Your task to perform on an android device: Clear all items from cart on newegg.com. Add "logitech g502" to the cart on newegg.com, then select checkout. Image 0: 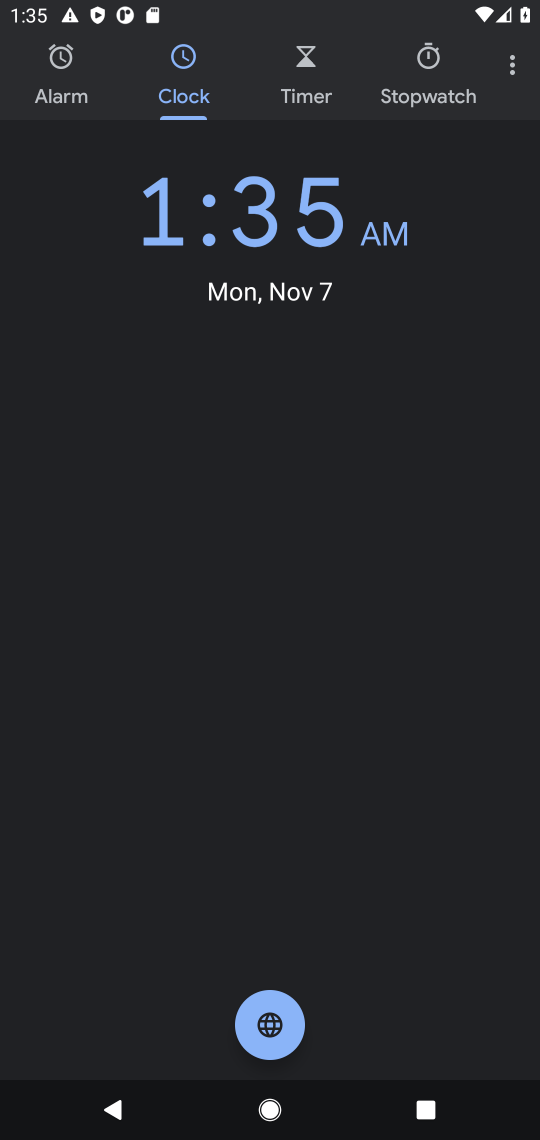
Step 0: press home button
Your task to perform on an android device: Clear all items from cart on newegg.com. Add "logitech g502" to the cart on newegg.com, then select checkout. Image 1: 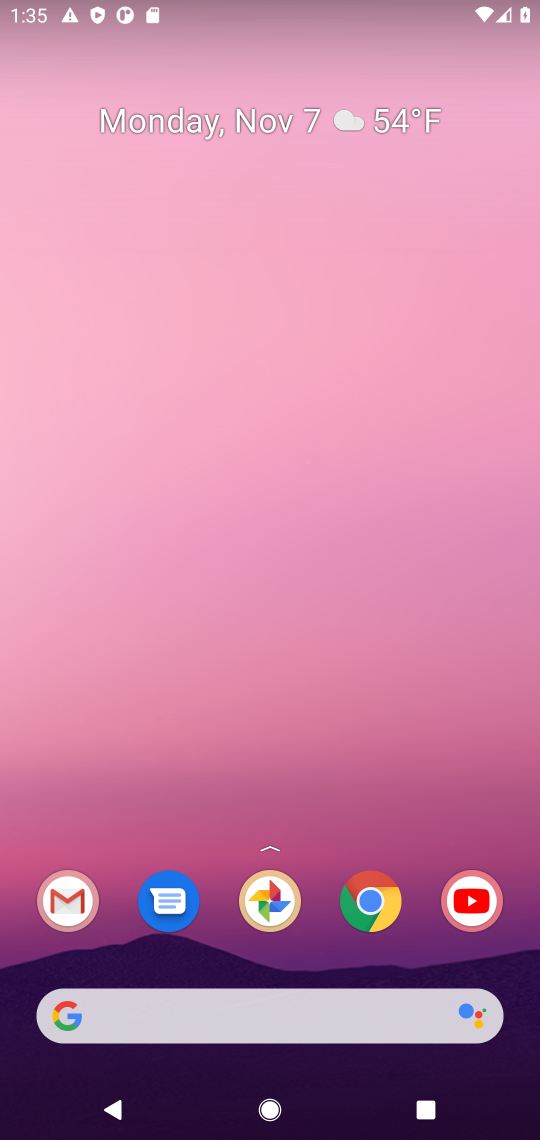
Step 1: click (367, 898)
Your task to perform on an android device: Clear all items from cart on newegg.com. Add "logitech g502" to the cart on newegg.com, then select checkout. Image 2: 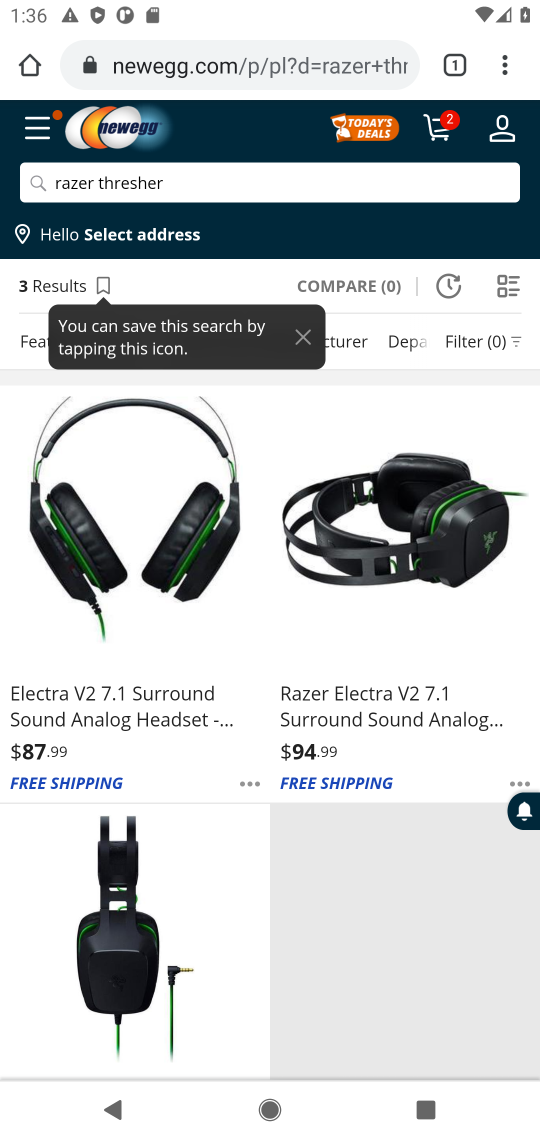
Step 2: click (435, 132)
Your task to perform on an android device: Clear all items from cart on newegg.com. Add "logitech g502" to the cart on newegg.com, then select checkout. Image 3: 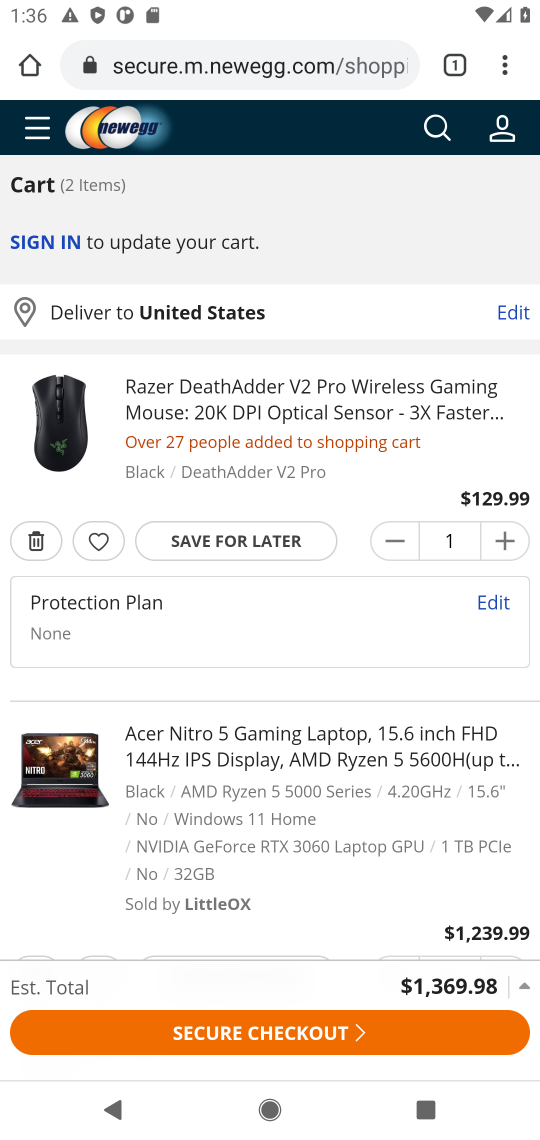
Step 3: click (28, 540)
Your task to perform on an android device: Clear all items from cart on newegg.com. Add "logitech g502" to the cart on newegg.com, then select checkout. Image 4: 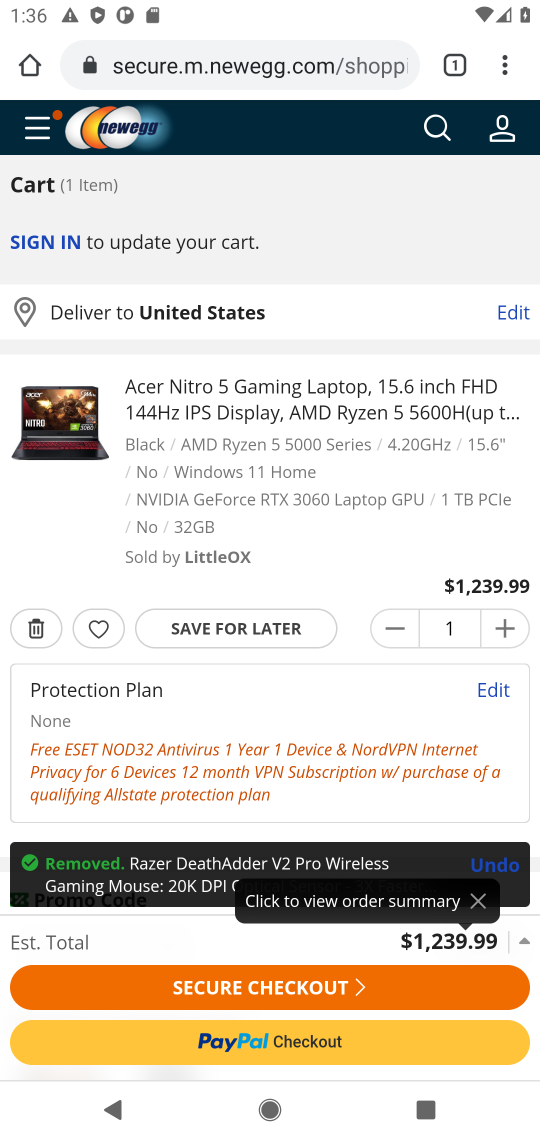
Step 4: click (35, 629)
Your task to perform on an android device: Clear all items from cart on newegg.com. Add "logitech g502" to the cart on newegg.com, then select checkout. Image 5: 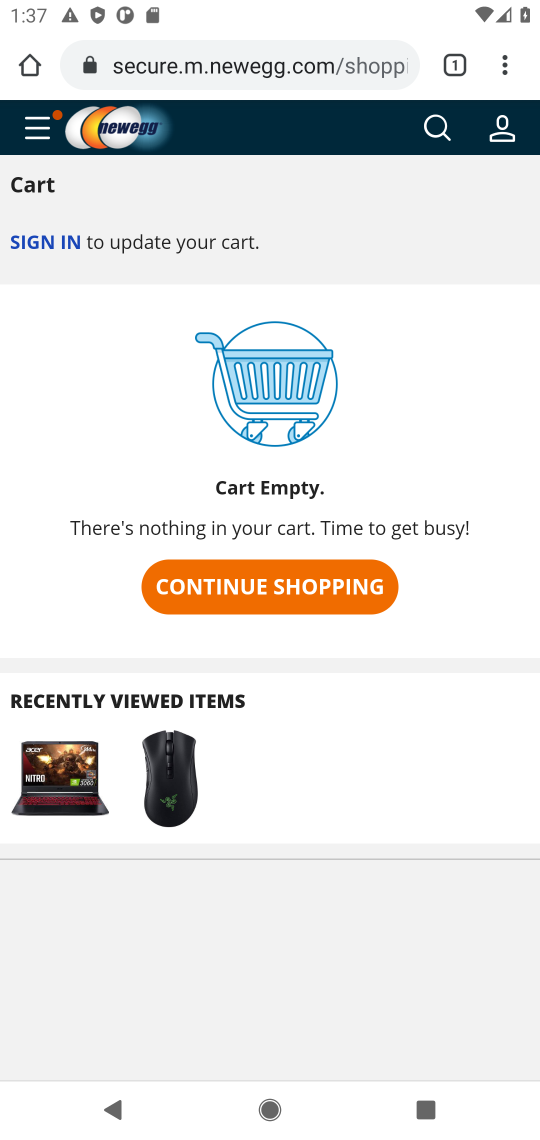
Step 5: click (274, 589)
Your task to perform on an android device: Clear all items from cart on newegg.com. Add "logitech g502" to the cart on newegg.com, then select checkout. Image 6: 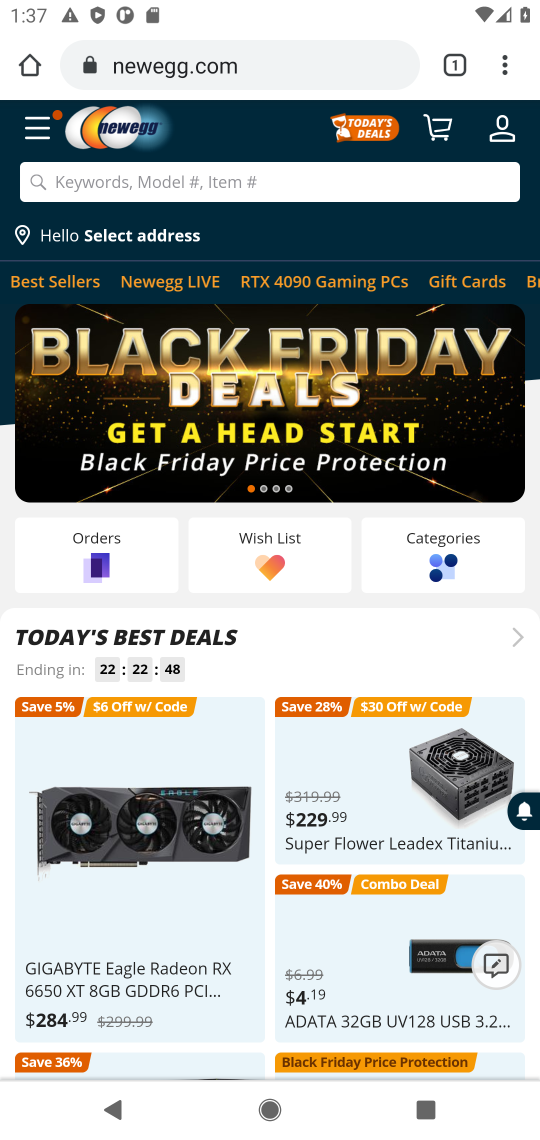
Step 6: click (184, 182)
Your task to perform on an android device: Clear all items from cart on newegg.com. Add "logitech g502" to the cart on newegg.com, then select checkout. Image 7: 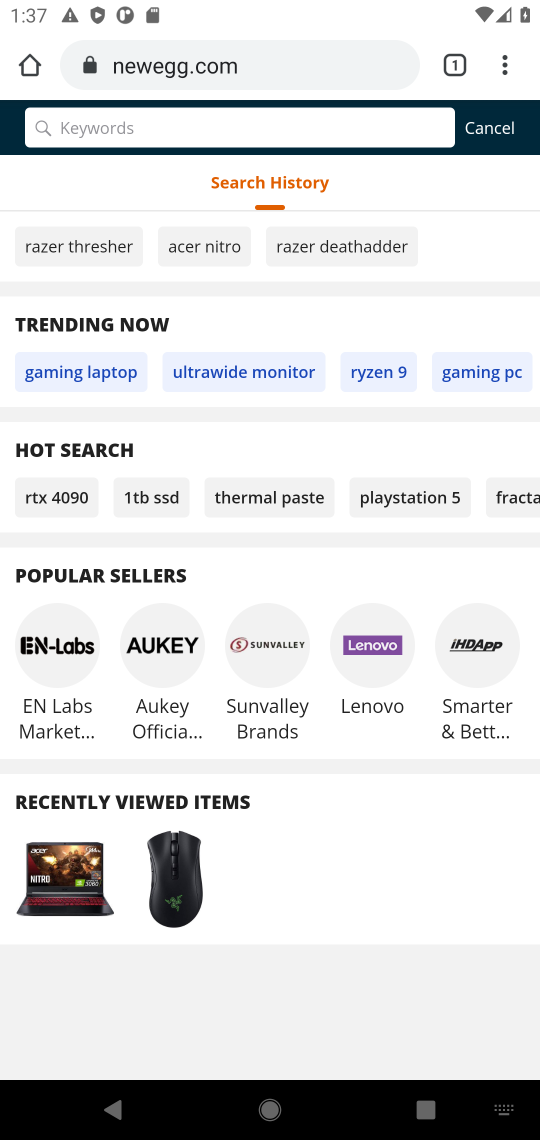
Step 7: type "logitech g502"
Your task to perform on an android device: Clear all items from cart on newegg.com. Add "logitech g502" to the cart on newegg.com, then select checkout. Image 8: 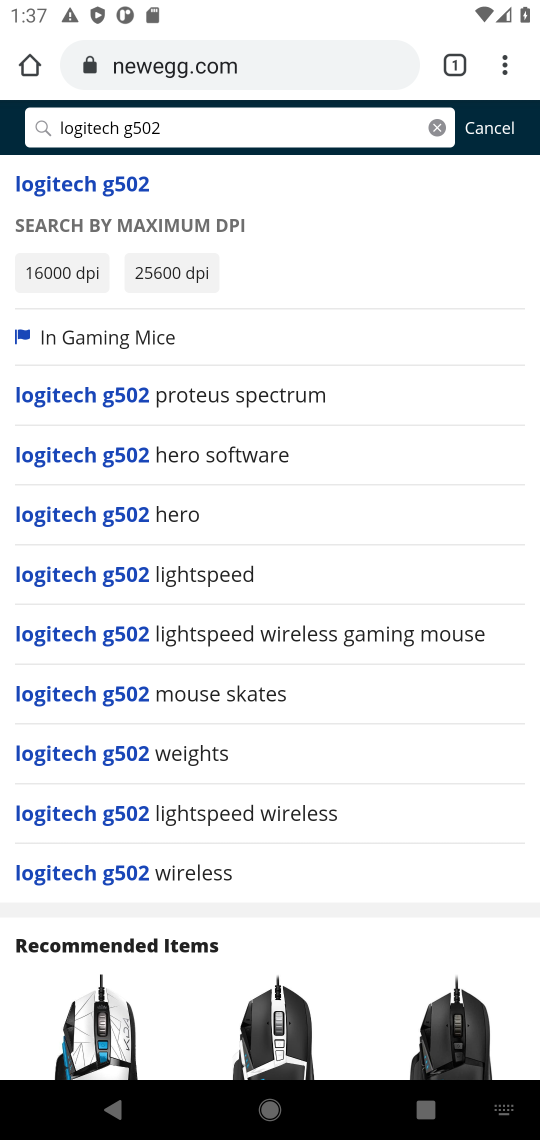
Step 8: click (98, 195)
Your task to perform on an android device: Clear all items from cart on newegg.com. Add "logitech g502" to the cart on newegg.com, then select checkout. Image 9: 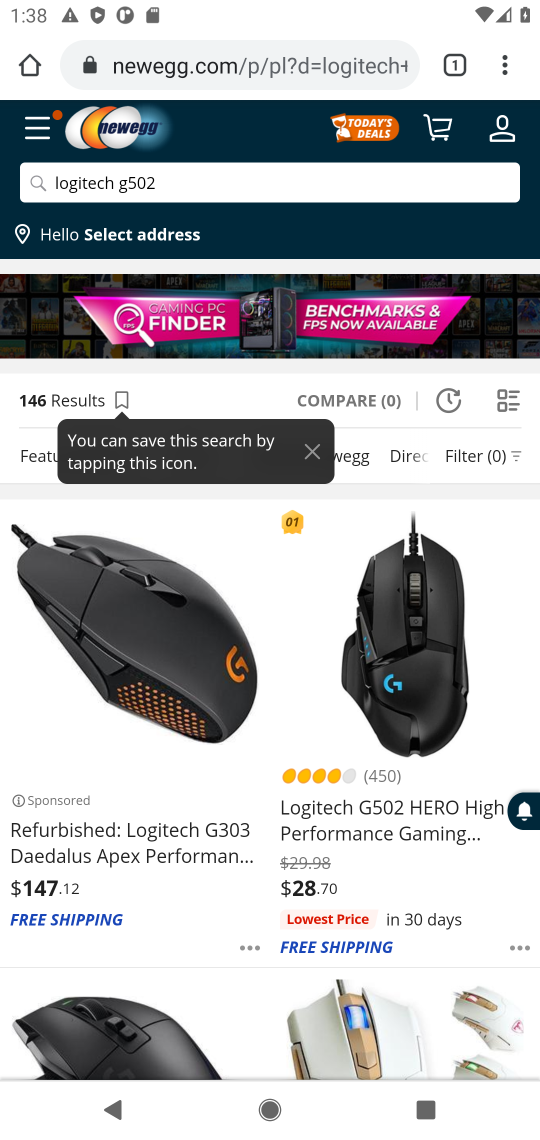
Step 9: click (374, 725)
Your task to perform on an android device: Clear all items from cart on newegg.com. Add "logitech g502" to the cart on newegg.com, then select checkout. Image 10: 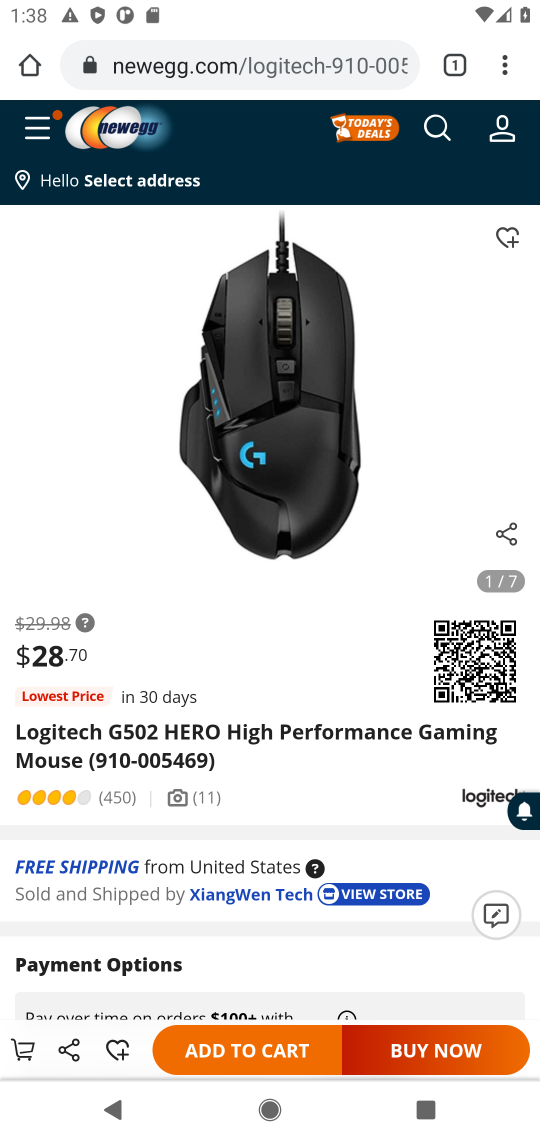
Step 10: click (247, 1048)
Your task to perform on an android device: Clear all items from cart on newegg.com. Add "logitech g502" to the cart on newegg.com, then select checkout. Image 11: 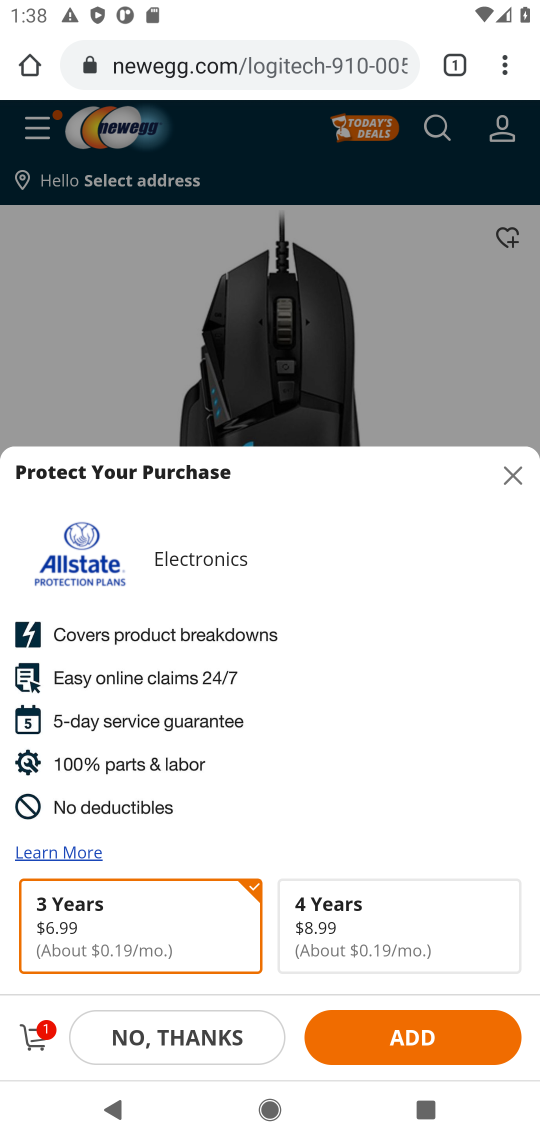
Step 11: click (34, 1039)
Your task to perform on an android device: Clear all items from cart on newegg.com. Add "logitech g502" to the cart on newegg.com, then select checkout. Image 12: 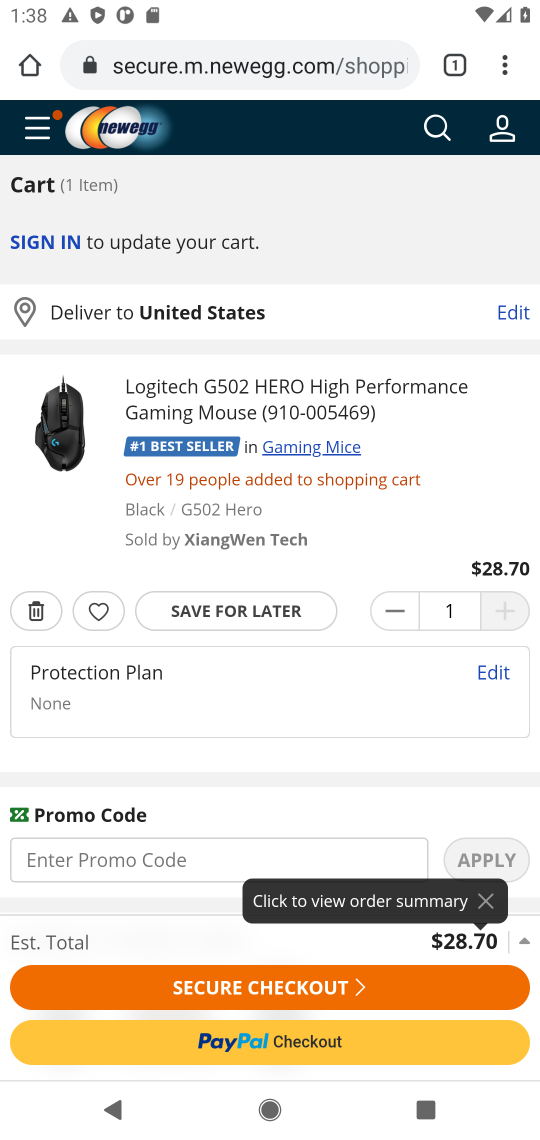
Step 12: click (248, 988)
Your task to perform on an android device: Clear all items from cart on newegg.com. Add "logitech g502" to the cart on newegg.com, then select checkout. Image 13: 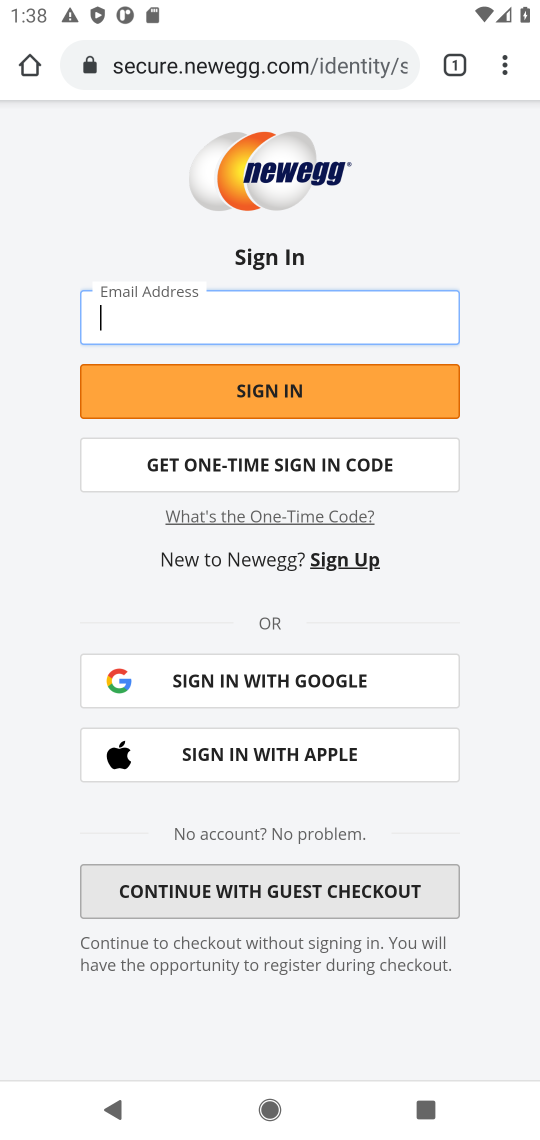
Step 13: task complete